Your task to perform on an android device: turn on bluetooth scan Image 0: 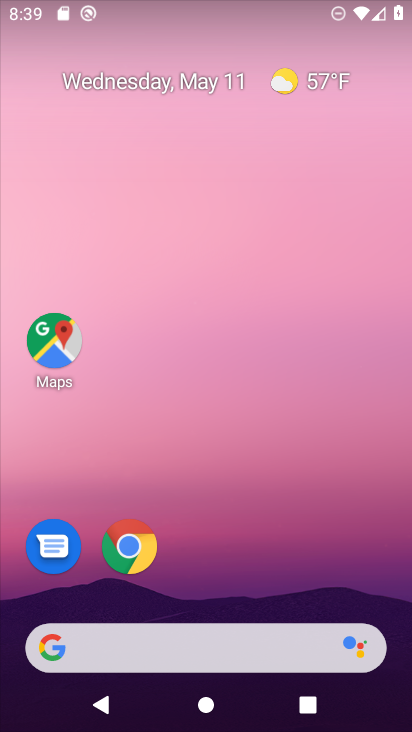
Step 0: drag from (202, 589) to (202, 245)
Your task to perform on an android device: turn on bluetooth scan Image 1: 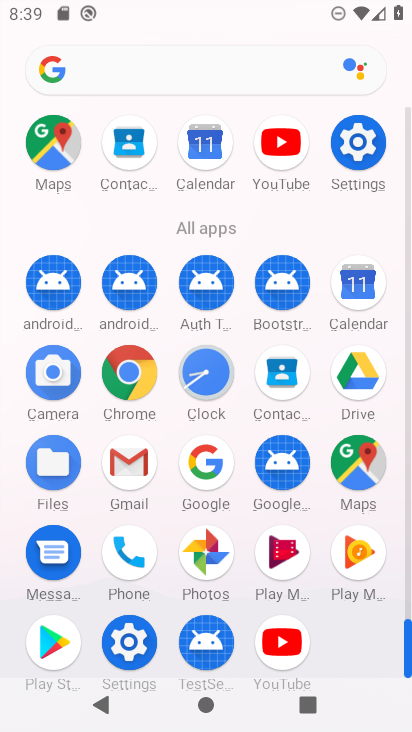
Step 1: click (346, 147)
Your task to perform on an android device: turn on bluetooth scan Image 2: 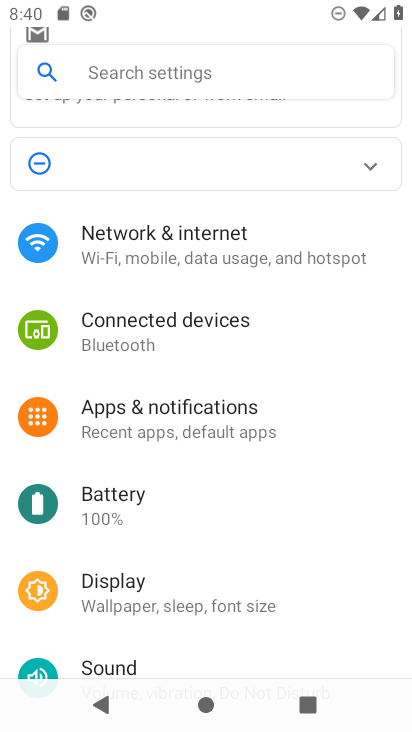
Step 2: drag from (239, 615) to (283, 353)
Your task to perform on an android device: turn on bluetooth scan Image 3: 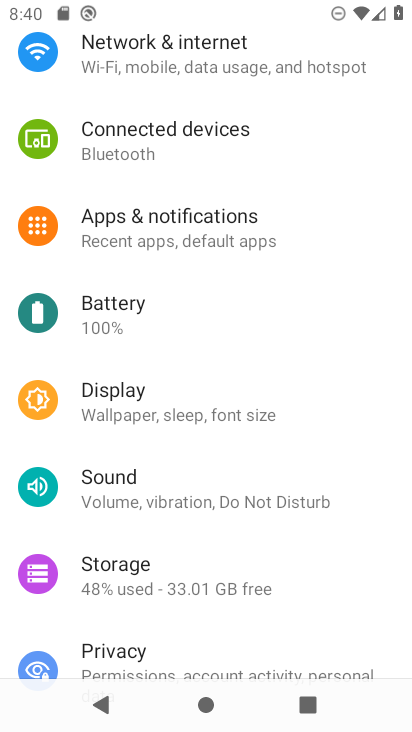
Step 3: drag from (181, 603) to (230, 342)
Your task to perform on an android device: turn on bluetooth scan Image 4: 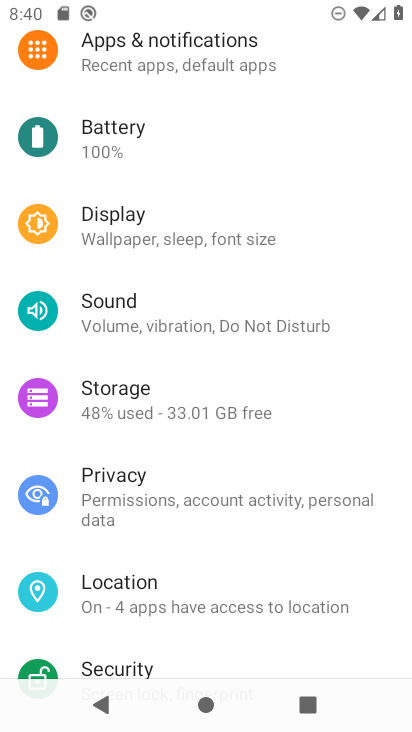
Step 4: click (150, 608)
Your task to perform on an android device: turn on bluetooth scan Image 5: 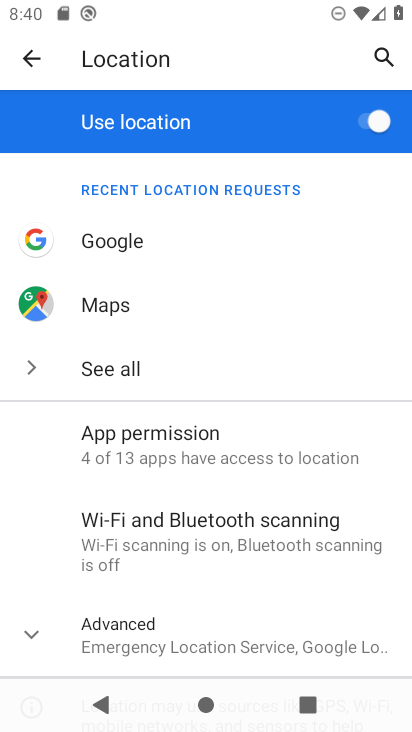
Step 5: click (234, 537)
Your task to perform on an android device: turn on bluetooth scan Image 6: 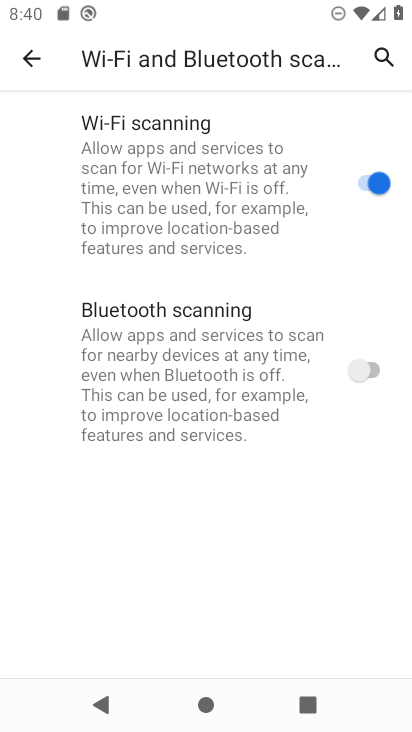
Step 6: click (375, 374)
Your task to perform on an android device: turn on bluetooth scan Image 7: 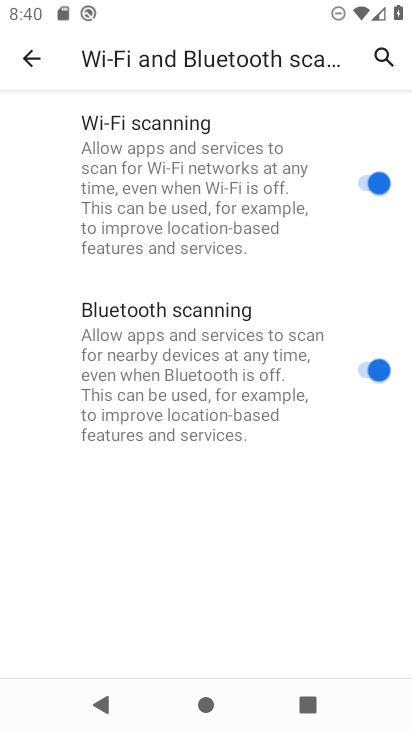
Step 7: task complete